Your task to perform on an android device: toggle location history Image 0: 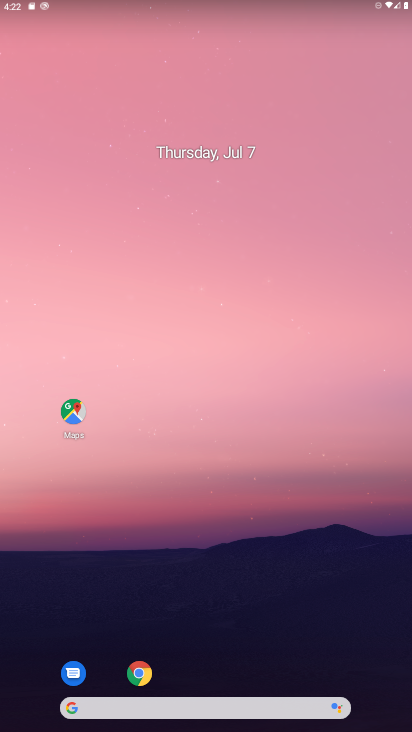
Step 0: drag from (254, 673) to (254, 10)
Your task to perform on an android device: toggle location history Image 1: 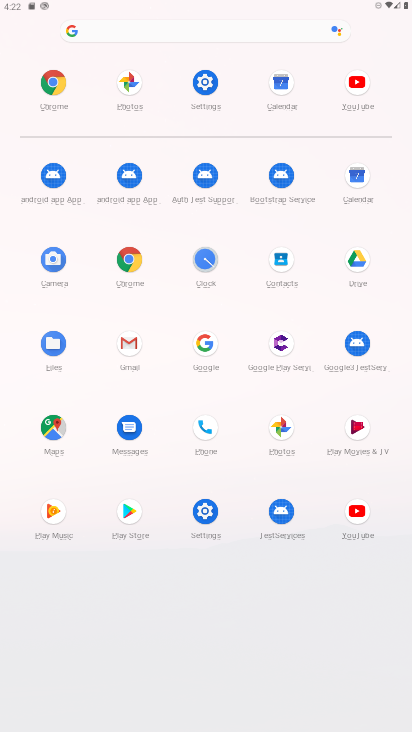
Step 1: click (203, 81)
Your task to perform on an android device: toggle location history Image 2: 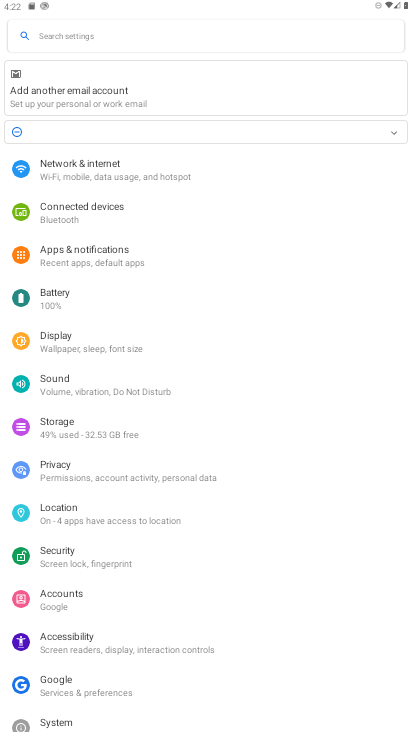
Step 2: click (85, 508)
Your task to perform on an android device: toggle location history Image 3: 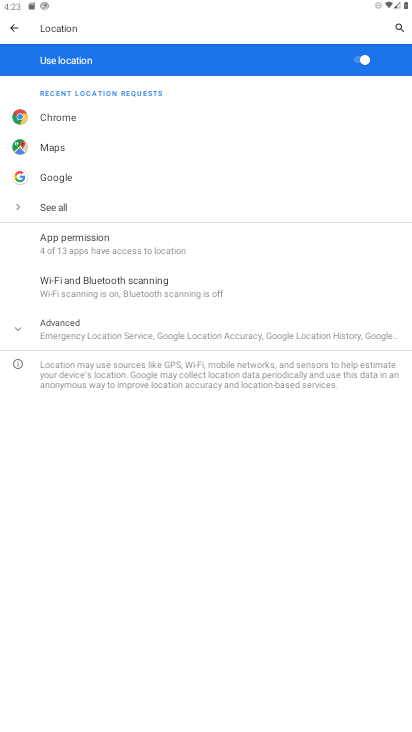
Step 3: click (18, 325)
Your task to perform on an android device: toggle location history Image 4: 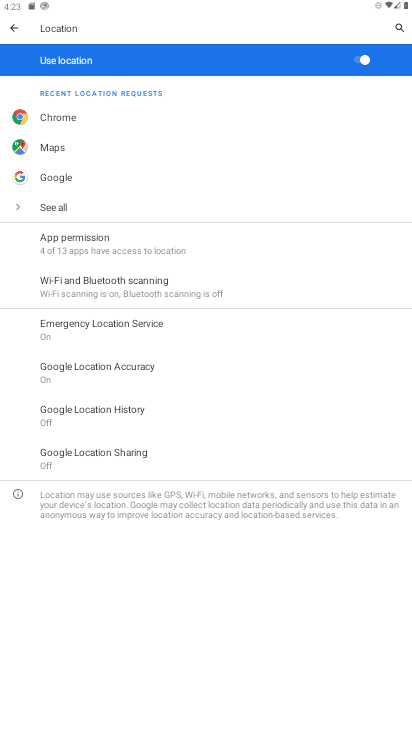
Step 4: click (153, 406)
Your task to perform on an android device: toggle location history Image 5: 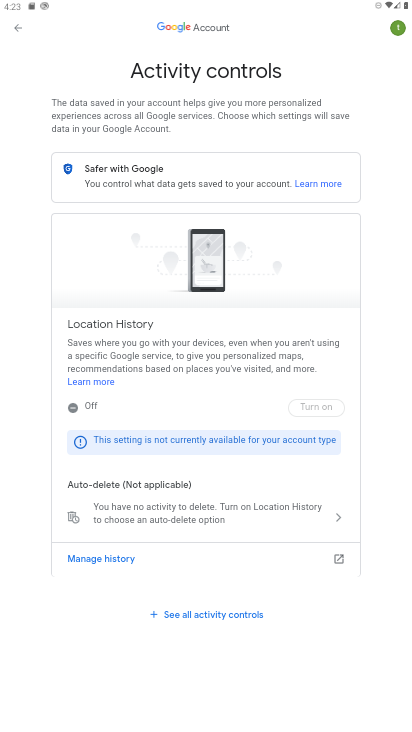
Step 5: task complete